Your task to perform on an android device: delete browsing data in the chrome app Image 0: 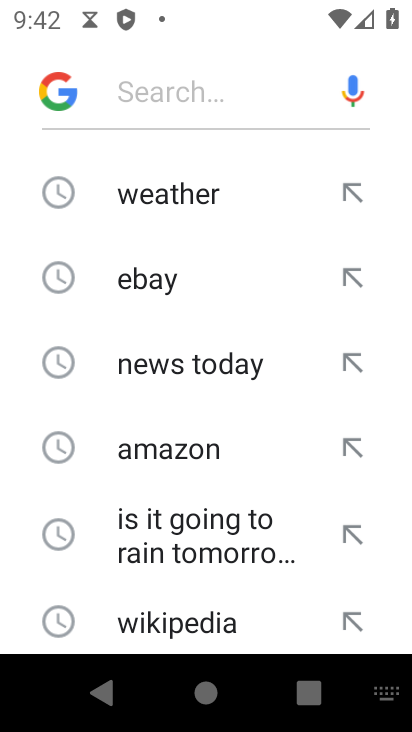
Step 0: press home button
Your task to perform on an android device: delete browsing data in the chrome app Image 1: 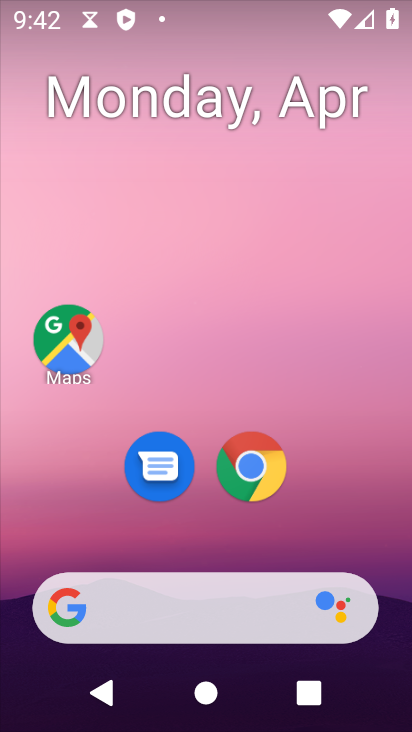
Step 1: click (245, 466)
Your task to perform on an android device: delete browsing data in the chrome app Image 2: 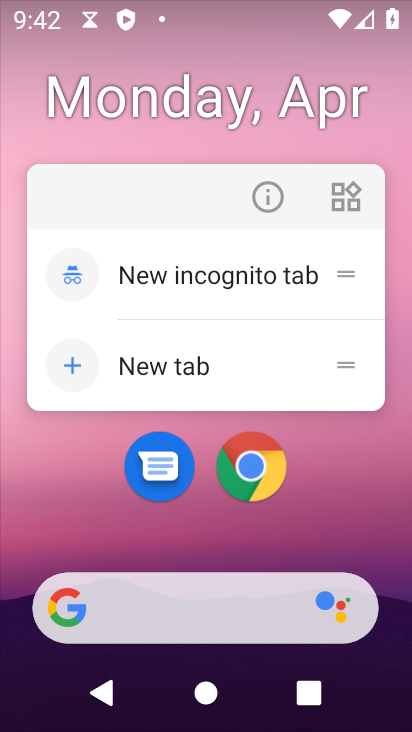
Step 2: click (246, 466)
Your task to perform on an android device: delete browsing data in the chrome app Image 3: 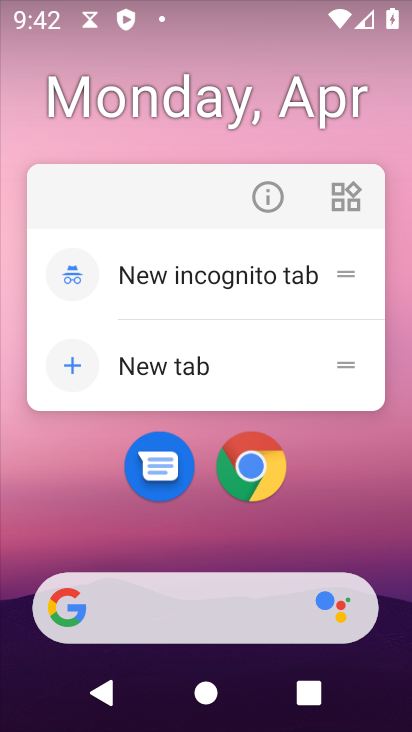
Step 3: click (267, 487)
Your task to perform on an android device: delete browsing data in the chrome app Image 4: 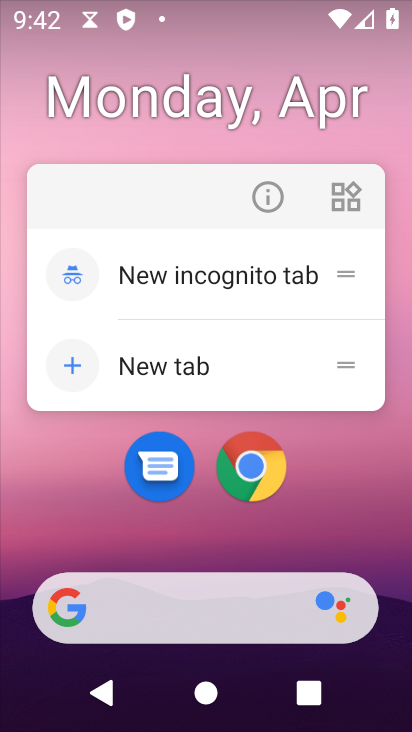
Step 4: click (267, 487)
Your task to perform on an android device: delete browsing data in the chrome app Image 5: 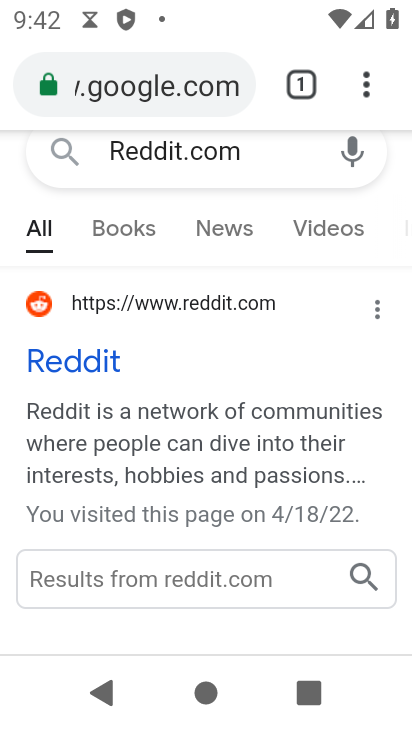
Step 5: click (368, 78)
Your task to perform on an android device: delete browsing data in the chrome app Image 6: 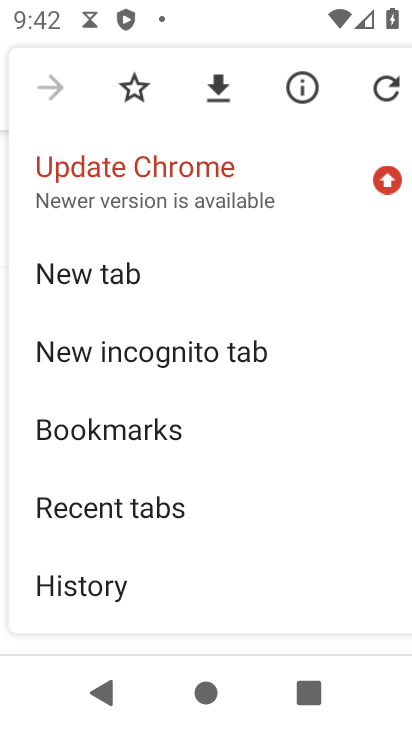
Step 6: drag from (205, 473) to (284, 267)
Your task to perform on an android device: delete browsing data in the chrome app Image 7: 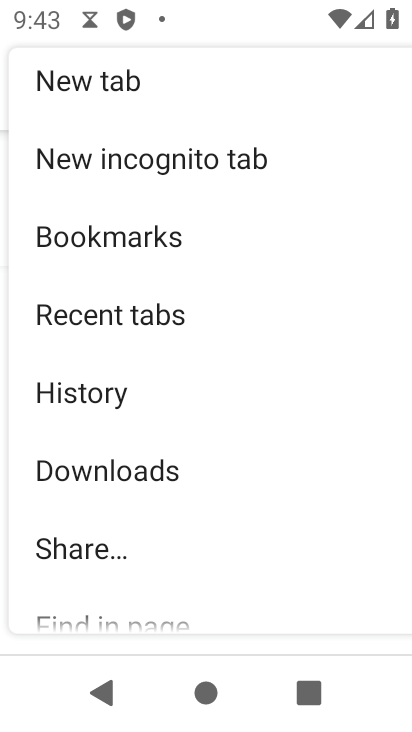
Step 7: drag from (195, 486) to (212, 410)
Your task to perform on an android device: delete browsing data in the chrome app Image 8: 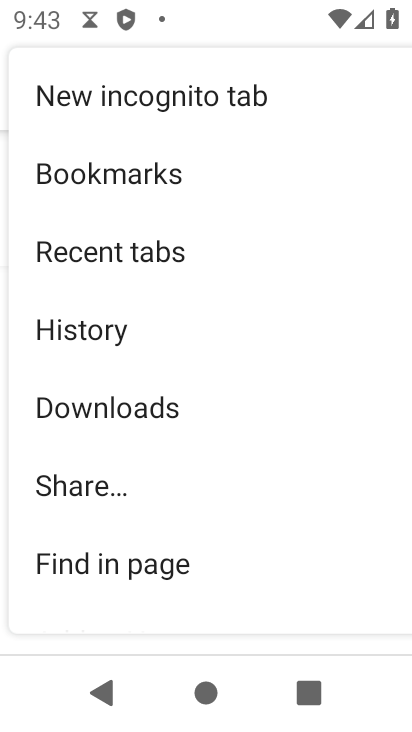
Step 8: drag from (220, 556) to (231, 489)
Your task to perform on an android device: delete browsing data in the chrome app Image 9: 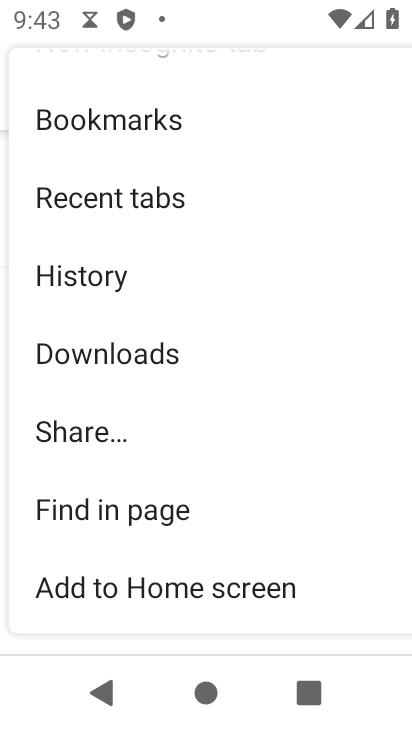
Step 9: drag from (229, 537) to (224, 417)
Your task to perform on an android device: delete browsing data in the chrome app Image 10: 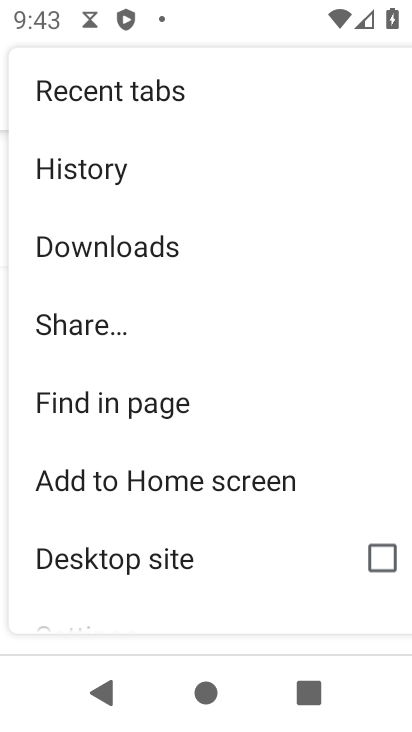
Step 10: drag from (226, 459) to (234, 365)
Your task to perform on an android device: delete browsing data in the chrome app Image 11: 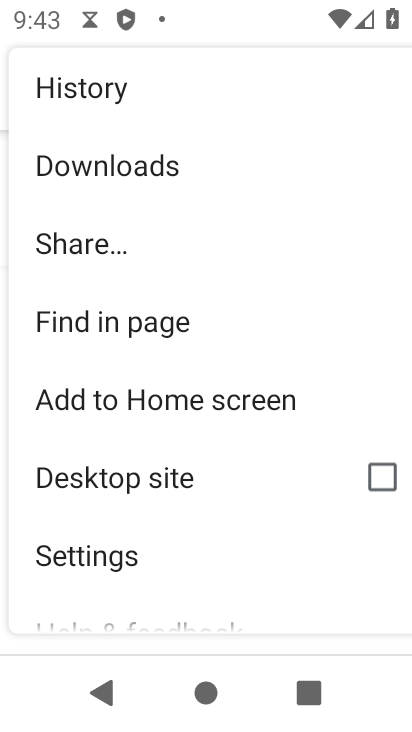
Step 11: click (120, 100)
Your task to perform on an android device: delete browsing data in the chrome app Image 12: 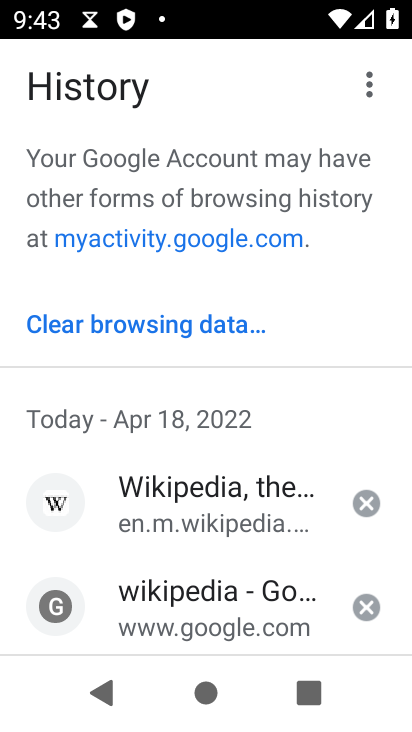
Step 12: click (201, 328)
Your task to perform on an android device: delete browsing data in the chrome app Image 13: 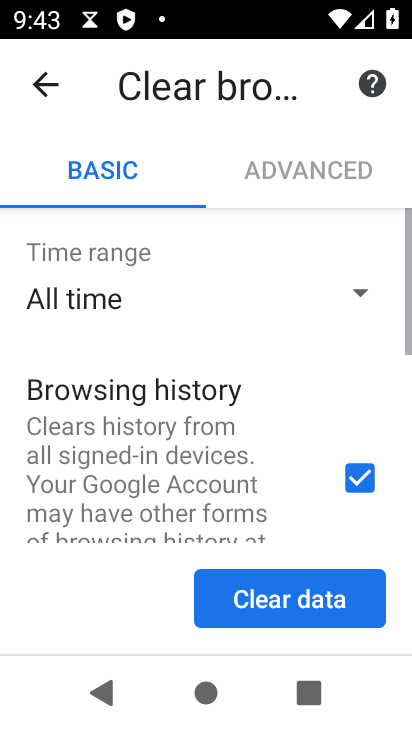
Step 13: click (298, 601)
Your task to perform on an android device: delete browsing data in the chrome app Image 14: 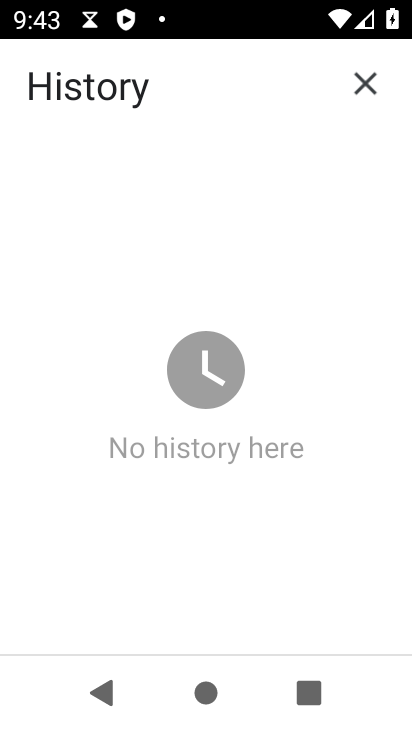
Step 14: task complete